Your task to perform on an android device: Open privacy settings Image 0: 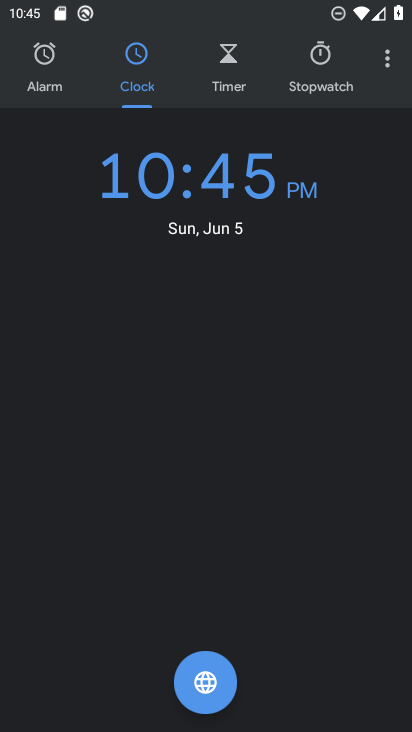
Step 0: press back button
Your task to perform on an android device: Open privacy settings Image 1: 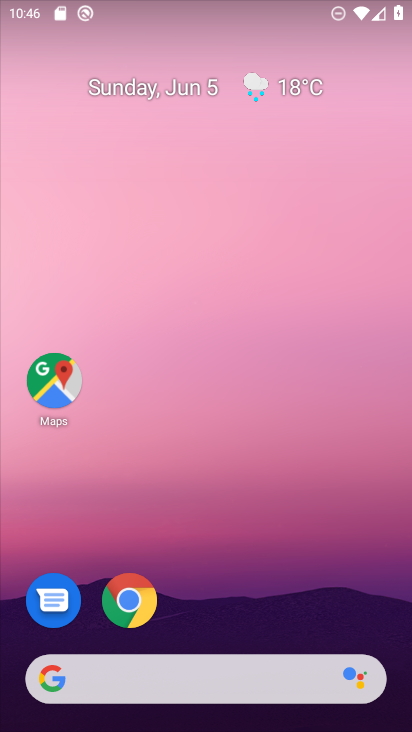
Step 1: click (116, 604)
Your task to perform on an android device: Open privacy settings Image 2: 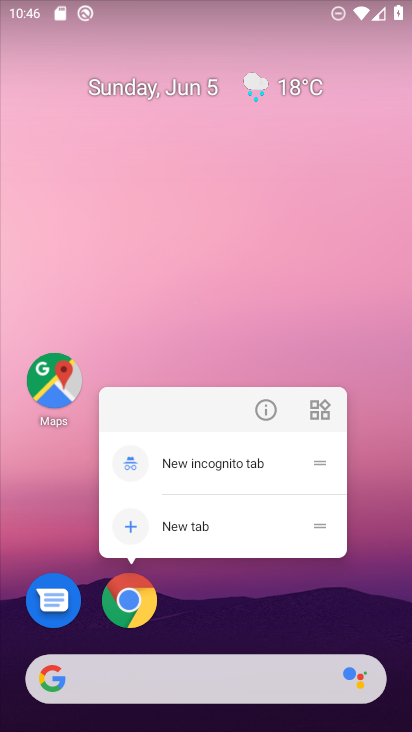
Step 2: click (125, 606)
Your task to perform on an android device: Open privacy settings Image 3: 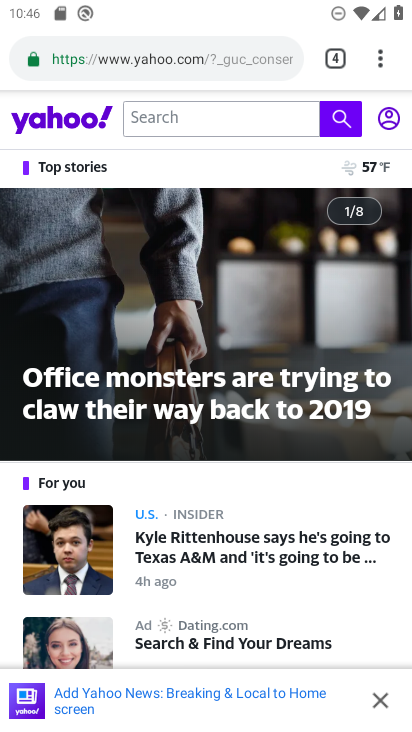
Step 3: drag from (381, 57) to (196, 618)
Your task to perform on an android device: Open privacy settings Image 4: 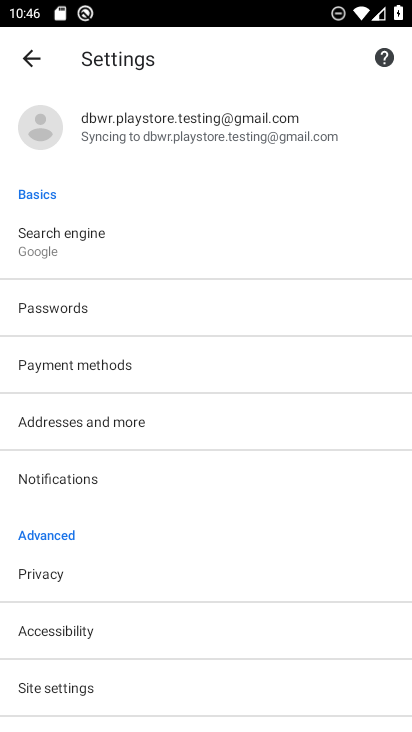
Step 4: click (58, 570)
Your task to perform on an android device: Open privacy settings Image 5: 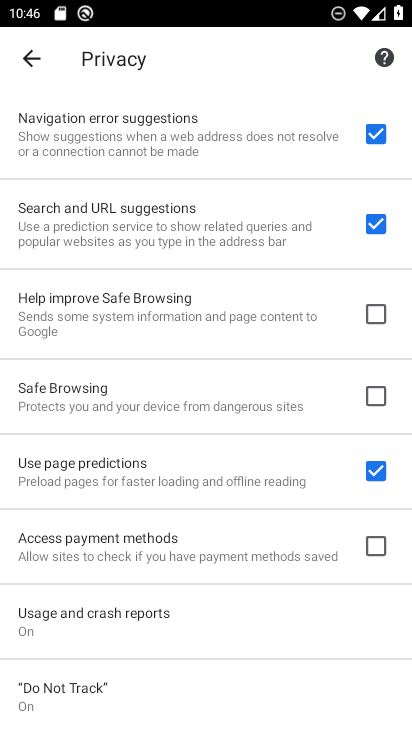
Step 5: task complete